Your task to perform on an android device: Go to CNN.com Image 0: 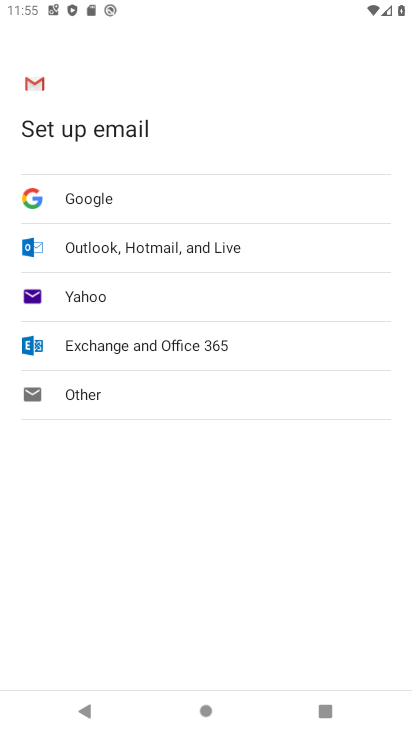
Step 0: press home button
Your task to perform on an android device: Go to CNN.com Image 1: 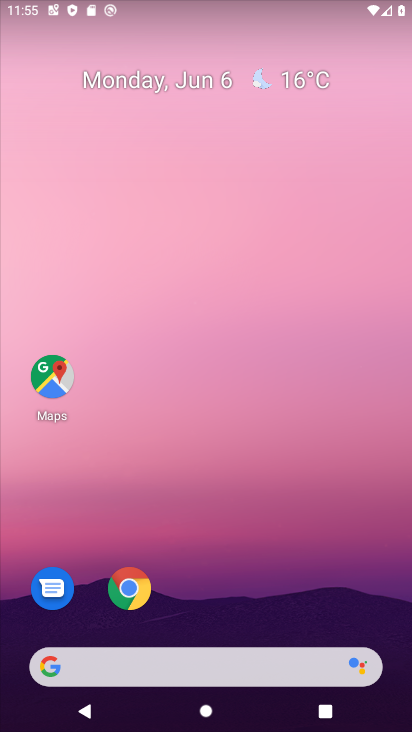
Step 1: click (225, 676)
Your task to perform on an android device: Go to CNN.com Image 2: 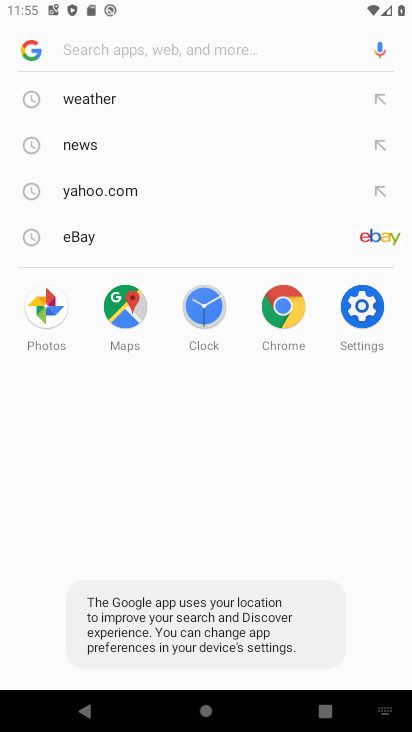
Step 2: click (189, 47)
Your task to perform on an android device: Go to CNN.com Image 3: 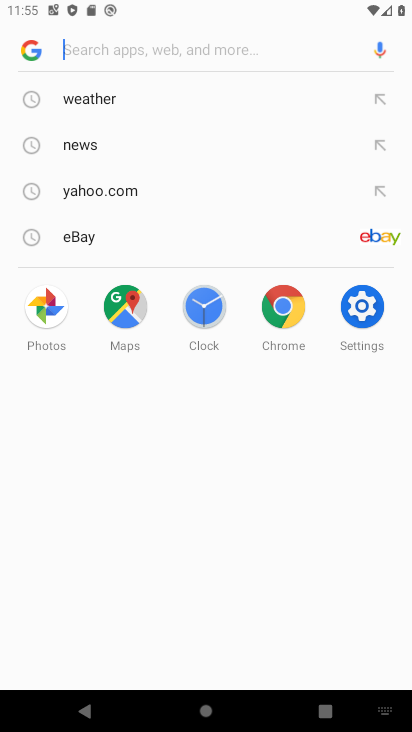
Step 3: type "cnn.com"
Your task to perform on an android device: Go to CNN.com Image 4: 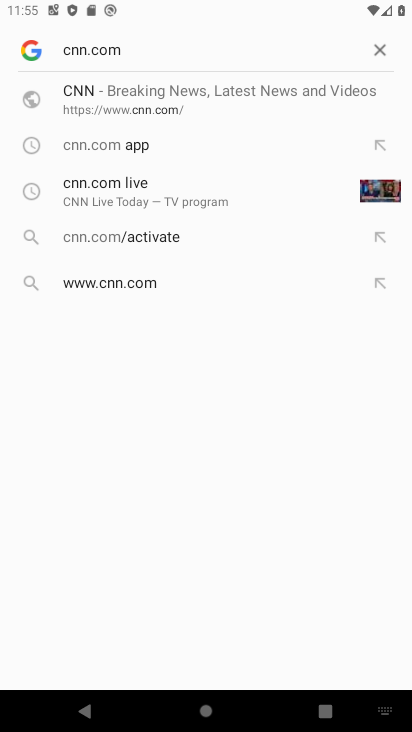
Step 4: click (218, 94)
Your task to perform on an android device: Go to CNN.com Image 5: 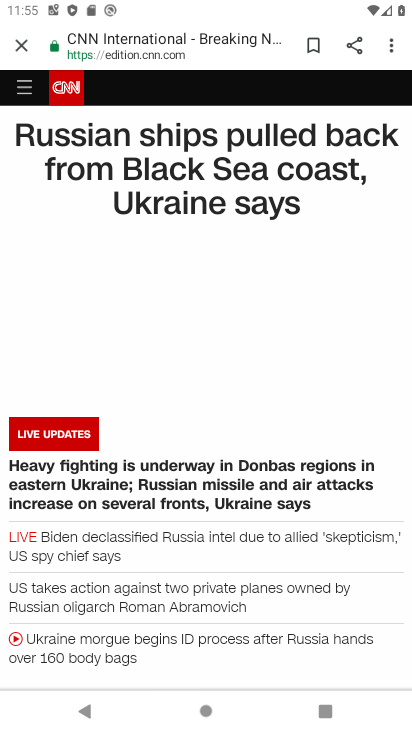
Step 5: task complete